Your task to perform on an android device: toggle data saver in the chrome app Image 0: 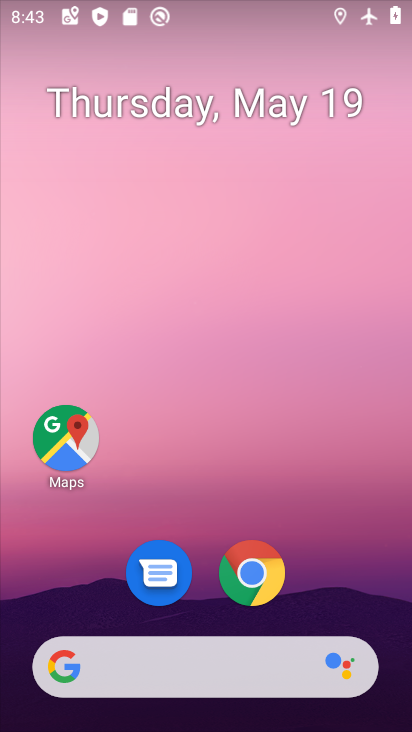
Step 0: click (240, 573)
Your task to perform on an android device: toggle data saver in the chrome app Image 1: 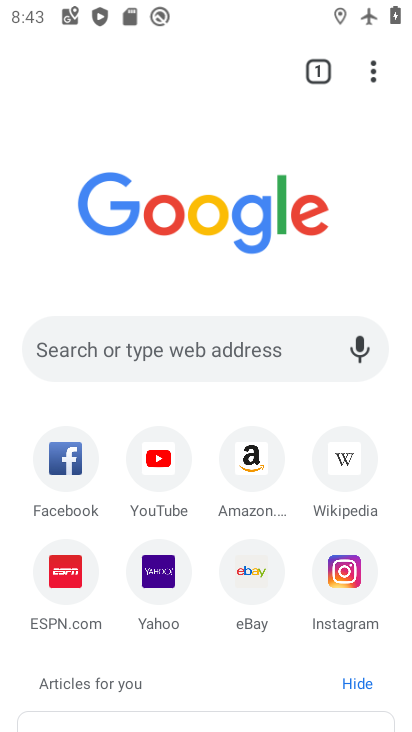
Step 1: click (376, 83)
Your task to perform on an android device: toggle data saver in the chrome app Image 2: 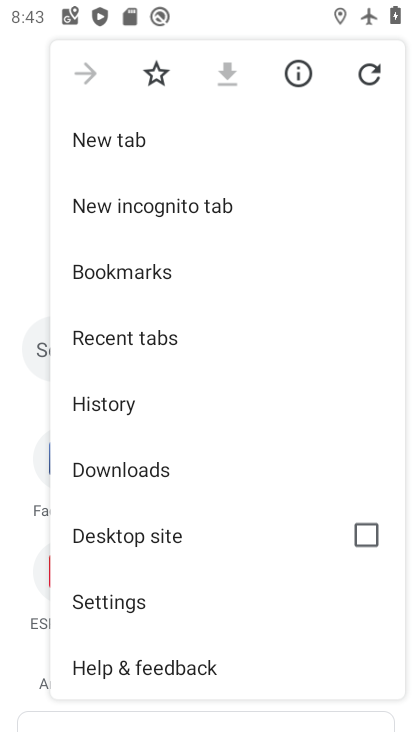
Step 2: drag from (221, 560) to (248, 257)
Your task to perform on an android device: toggle data saver in the chrome app Image 3: 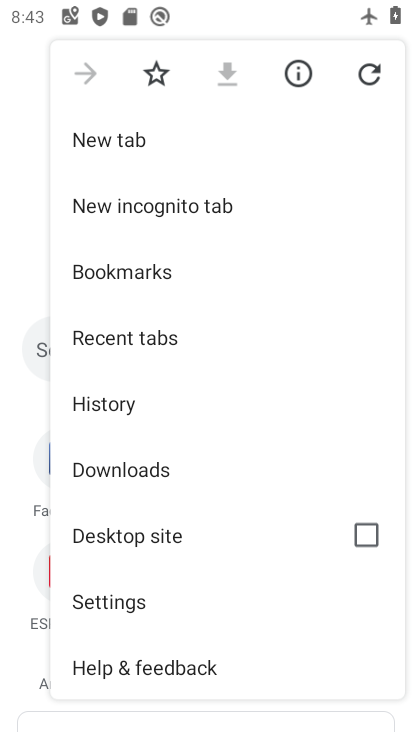
Step 3: click (126, 595)
Your task to perform on an android device: toggle data saver in the chrome app Image 4: 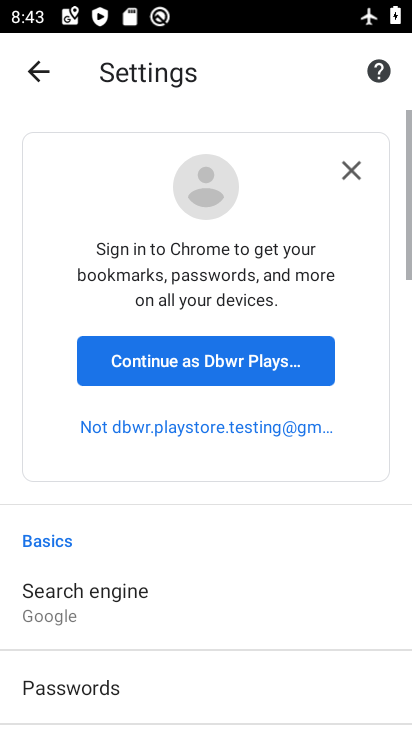
Step 4: drag from (215, 591) to (223, 65)
Your task to perform on an android device: toggle data saver in the chrome app Image 5: 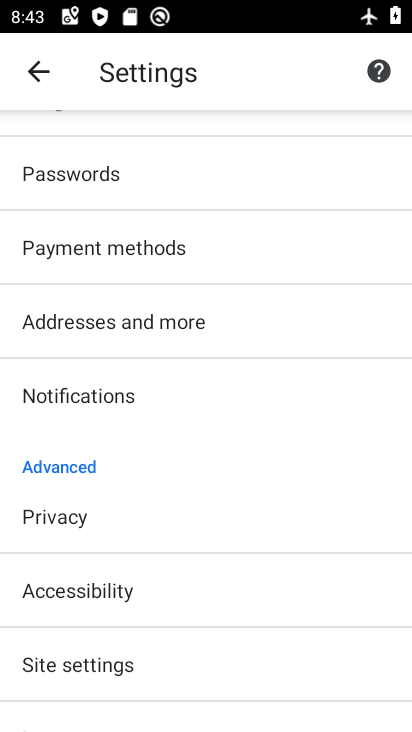
Step 5: drag from (199, 543) to (185, 239)
Your task to perform on an android device: toggle data saver in the chrome app Image 6: 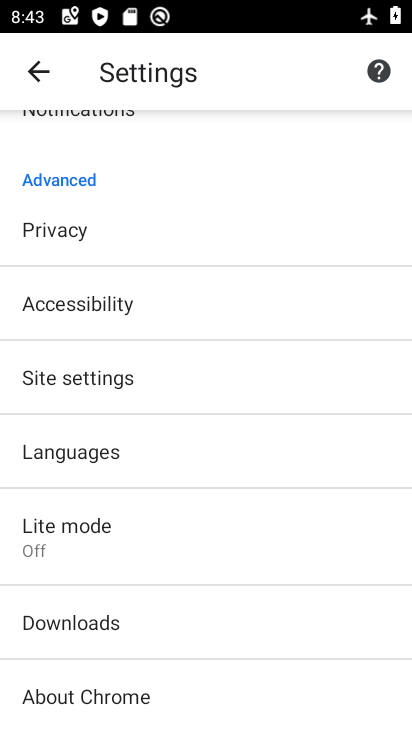
Step 6: click (42, 539)
Your task to perform on an android device: toggle data saver in the chrome app Image 7: 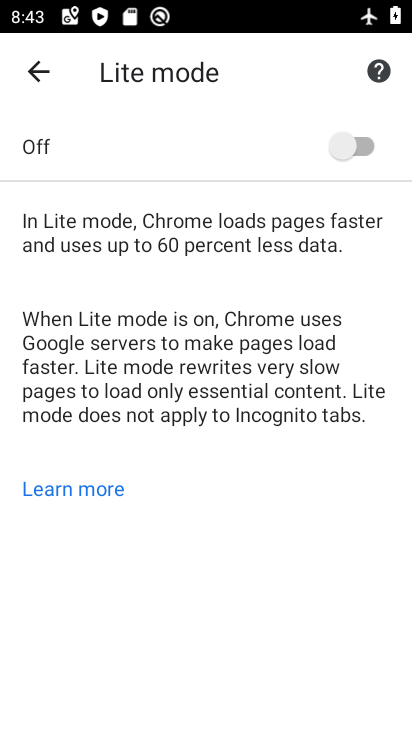
Step 7: click (347, 159)
Your task to perform on an android device: toggle data saver in the chrome app Image 8: 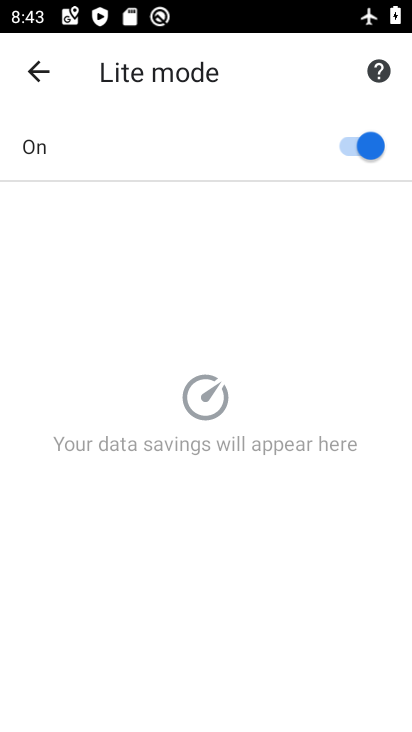
Step 8: task complete